Your task to perform on an android device: Check the weather Image 0: 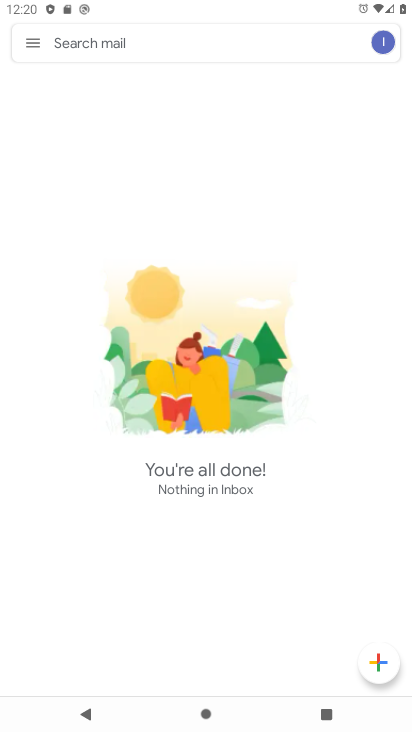
Step 0: press back button
Your task to perform on an android device: Check the weather Image 1: 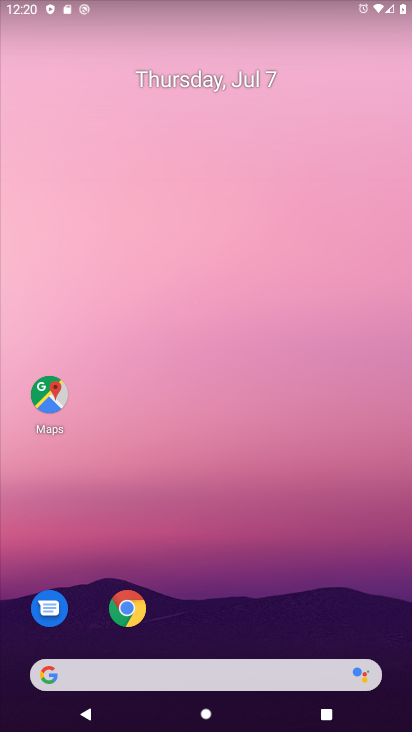
Step 1: click (136, 682)
Your task to perform on an android device: Check the weather Image 2: 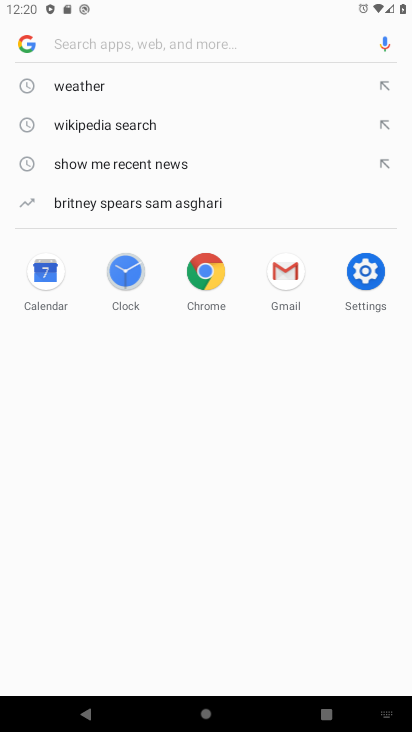
Step 2: click (71, 78)
Your task to perform on an android device: Check the weather Image 3: 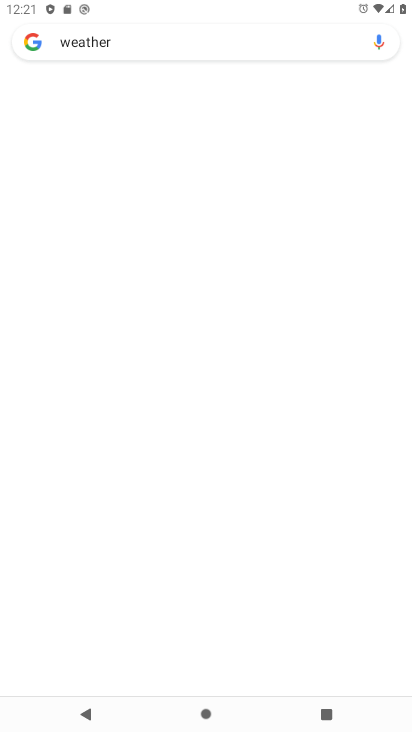
Step 3: click (77, 84)
Your task to perform on an android device: Check the weather Image 4: 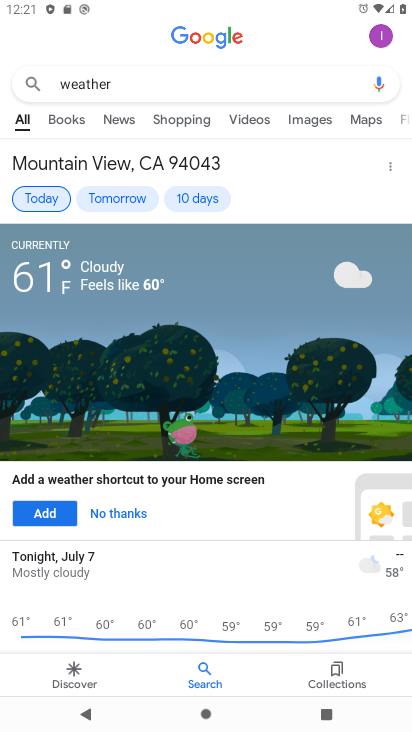
Step 4: task complete